Your task to perform on an android device: open the mobile data screen to see how much data has been used Image 0: 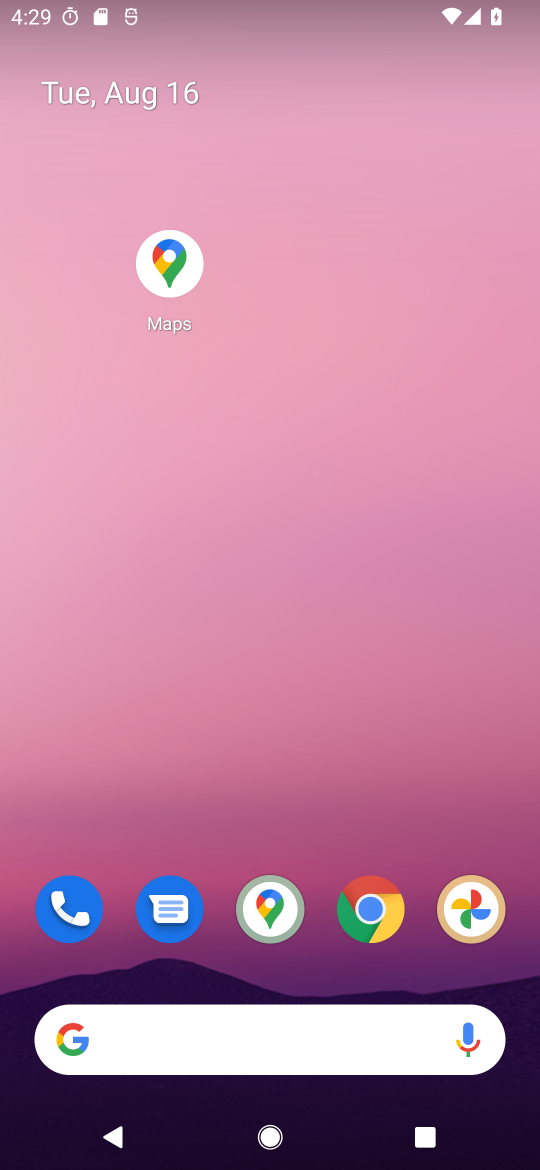
Step 0: press home button
Your task to perform on an android device: open the mobile data screen to see how much data has been used Image 1: 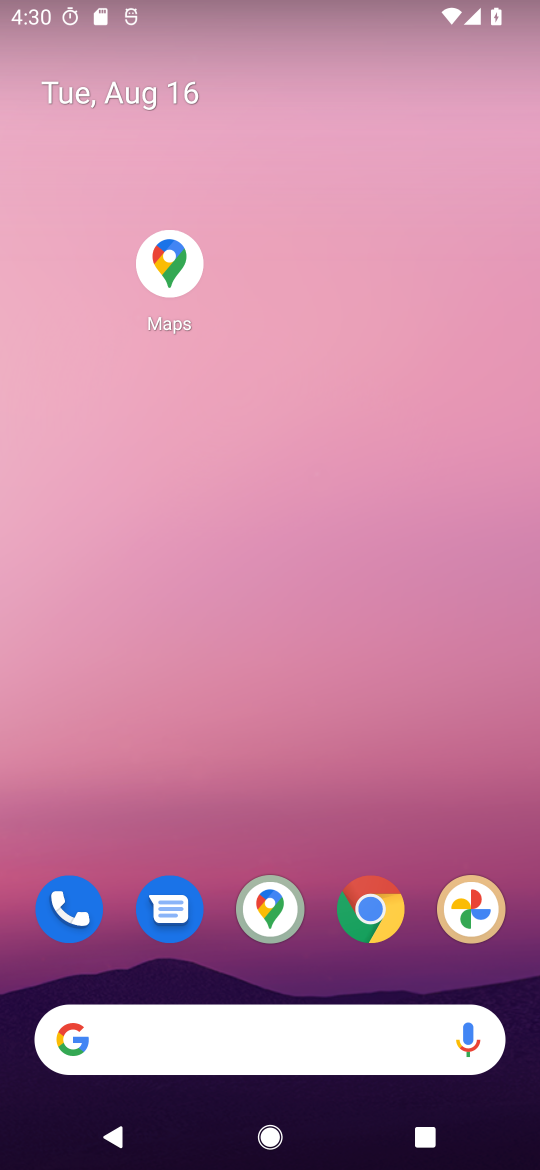
Step 1: drag from (275, 950) to (313, 215)
Your task to perform on an android device: open the mobile data screen to see how much data has been used Image 2: 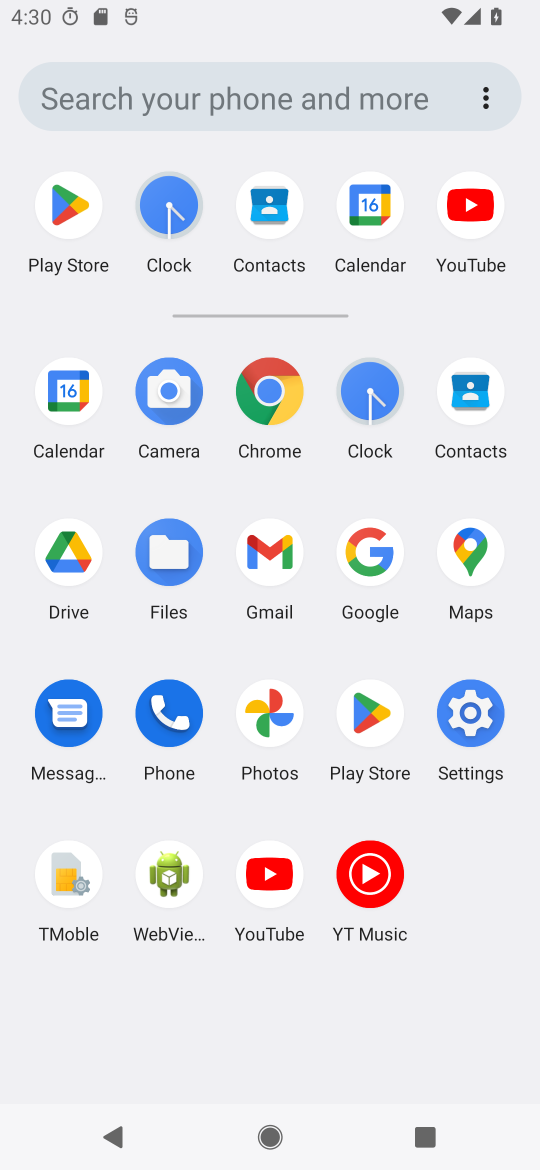
Step 2: click (464, 707)
Your task to perform on an android device: open the mobile data screen to see how much data has been used Image 3: 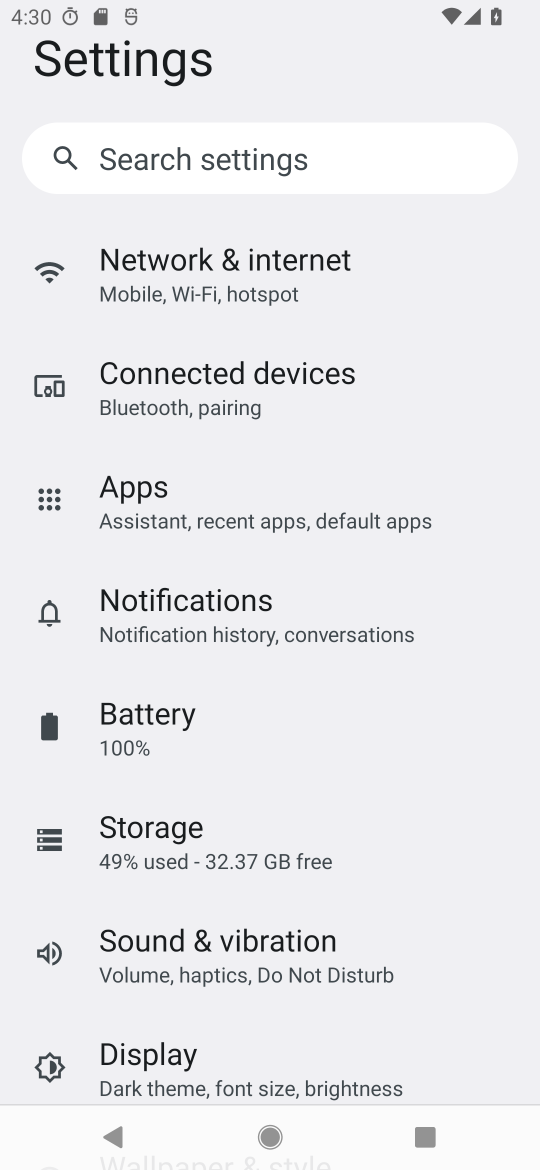
Step 3: click (179, 266)
Your task to perform on an android device: open the mobile data screen to see how much data has been used Image 4: 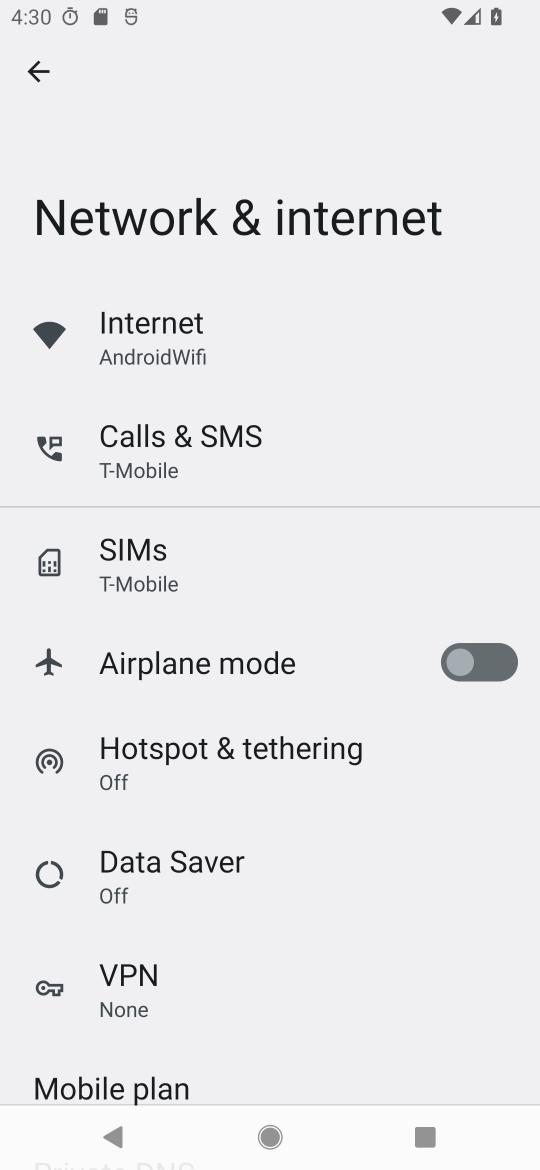
Step 4: click (145, 347)
Your task to perform on an android device: open the mobile data screen to see how much data has been used Image 5: 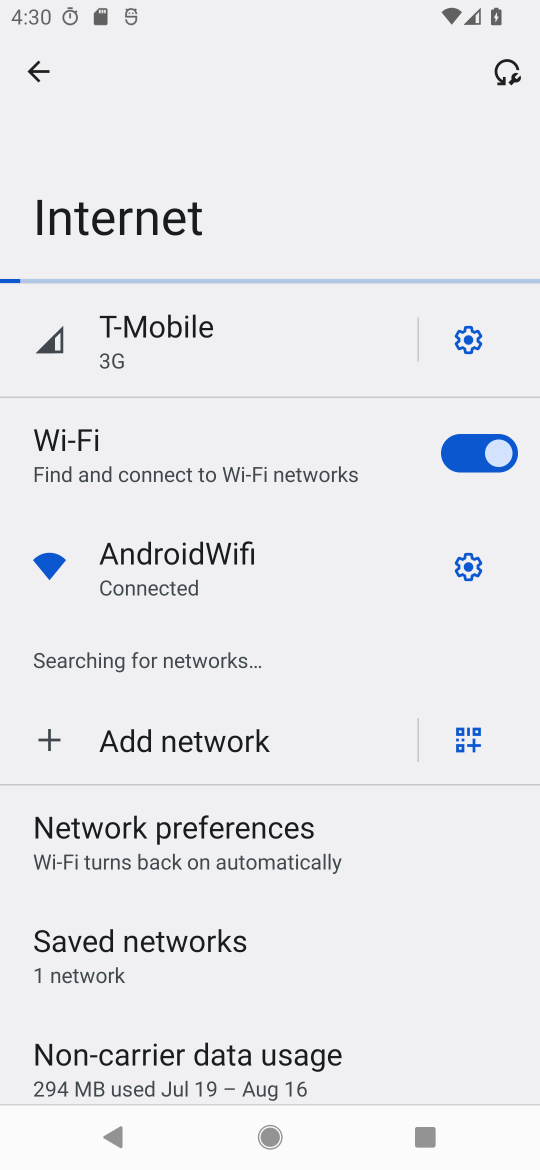
Step 5: click (170, 1072)
Your task to perform on an android device: open the mobile data screen to see how much data has been used Image 6: 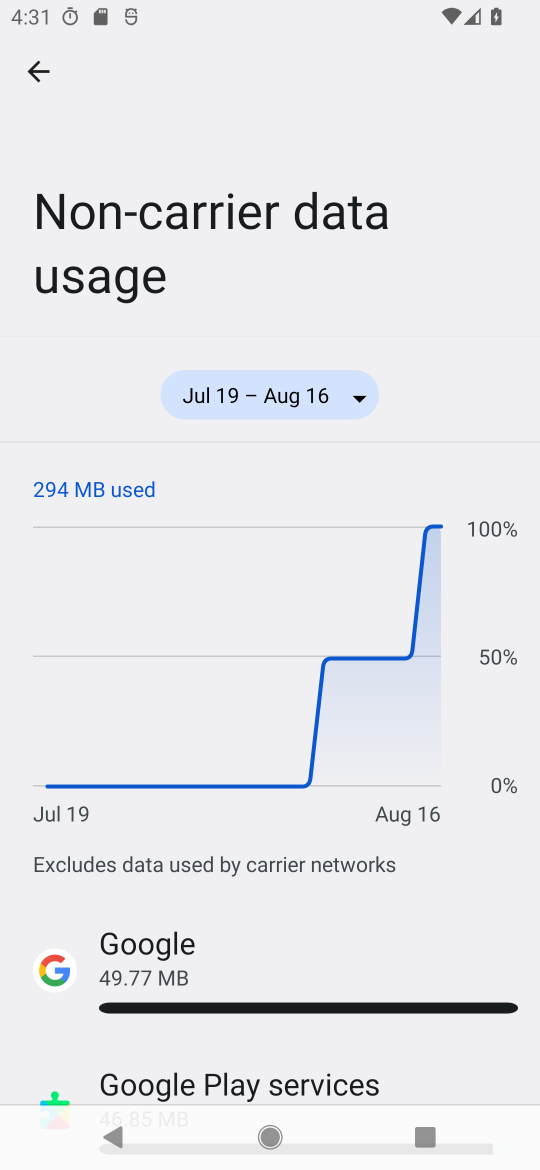
Step 6: task complete